Your task to perform on an android device: toggle notifications settings in the gmail app Image 0: 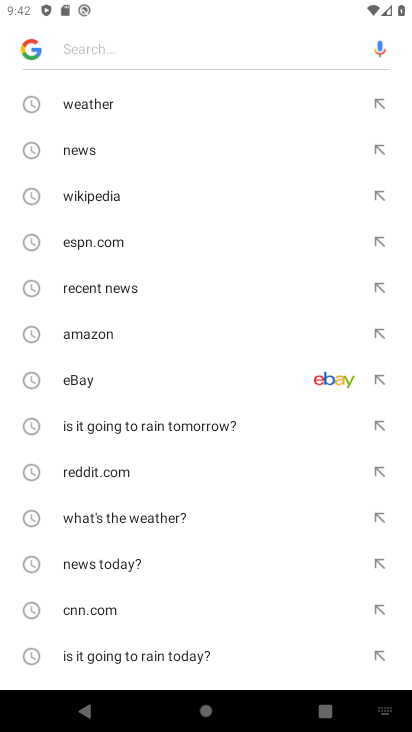
Step 0: press home button
Your task to perform on an android device: toggle notifications settings in the gmail app Image 1: 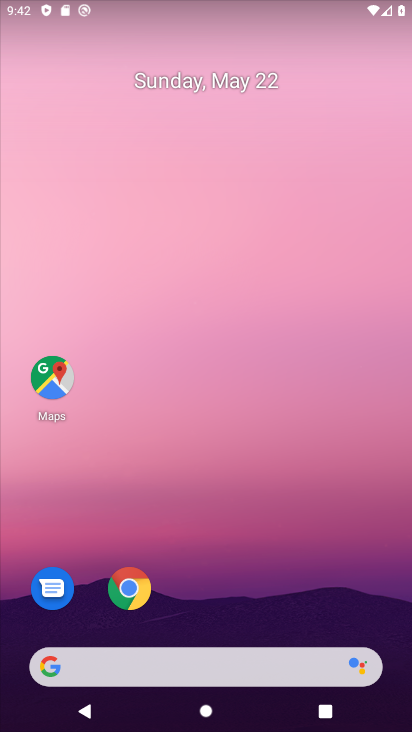
Step 1: drag from (327, 610) to (235, 90)
Your task to perform on an android device: toggle notifications settings in the gmail app Image 2: 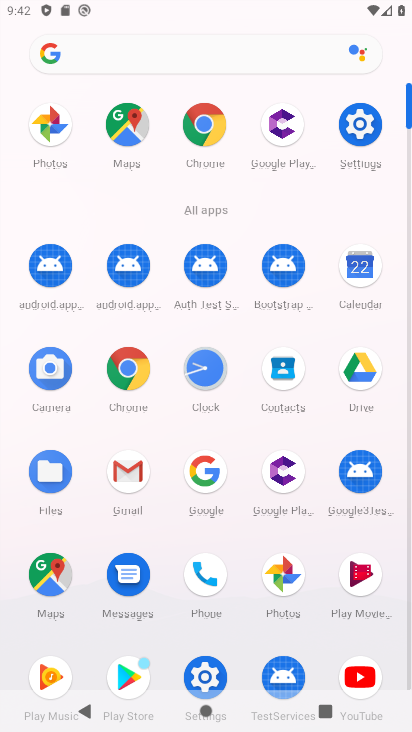
Step 2: click (132, 464)
Your task to perform on an android device: toggle notifications settings in the gmail app Image 3: 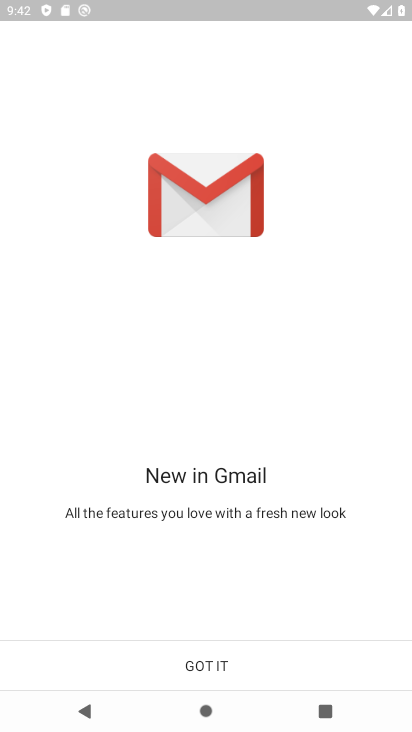
Step 3: click (206, 673)
Your task to perform on an android device: toggle notifications settings in the gmail app Image 4: 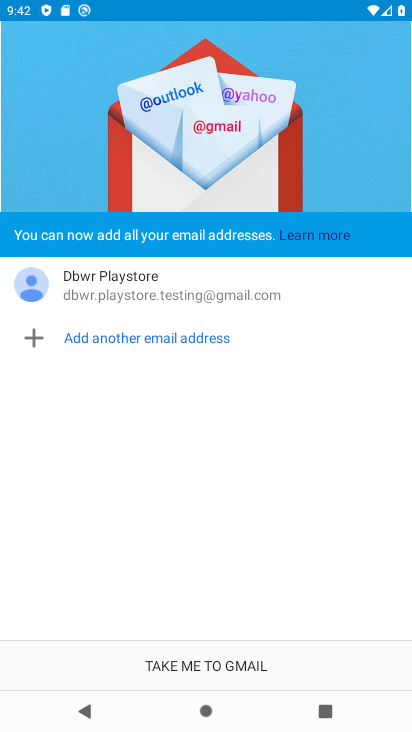
Step 4: click (206, 673)
Your task to perform on an android device: toggle notifications settings in the gmail app Image 5: 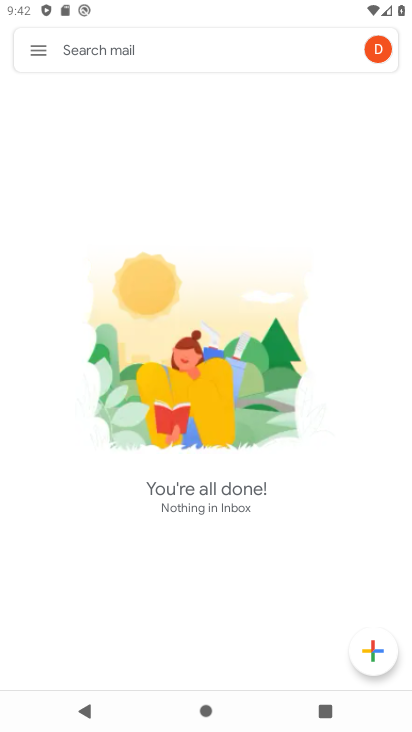
Step 5: click (36, 53)
Your task to perform on an android device: toggle notifications settings in the gmail app Image 6: 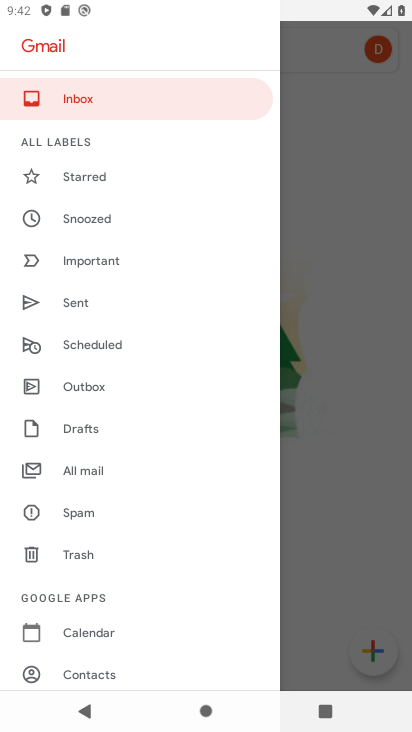
Step 6: drag from (156, 632) to (164, 135)
Your task to perform on an android device: toggle notifications settings in the gmail app Image 7: 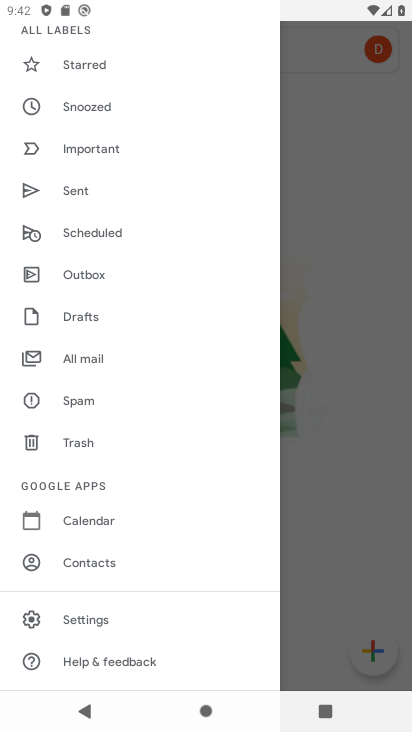
Step 7: click (102, 620)
Your task to perform on an android device: toggle notifications settings in the gmail app Image 8: 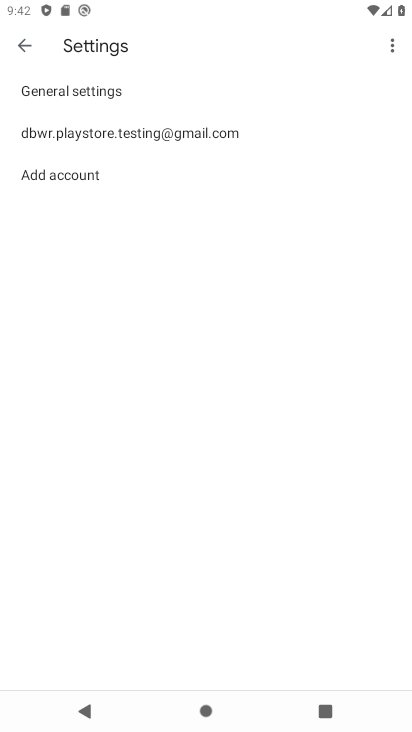
Step 8: click (168, 132)
Your task to perform on an android device: toggle notifications settings in the gmail app Image 9: 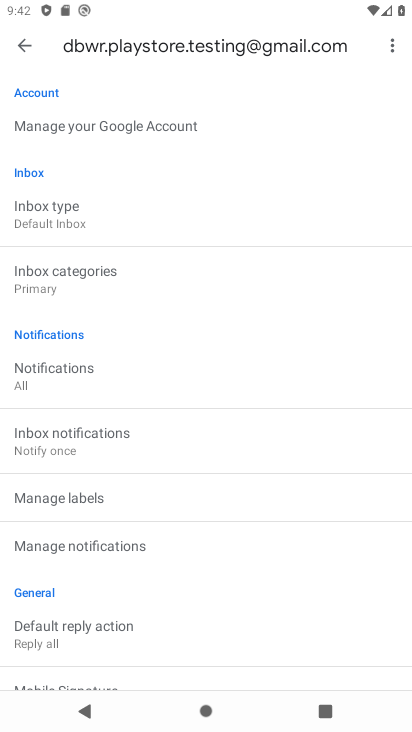
Step 9: click (161, 551)
Your task to perform on an android device: toggle notifications settings in the gmail app Image 10: 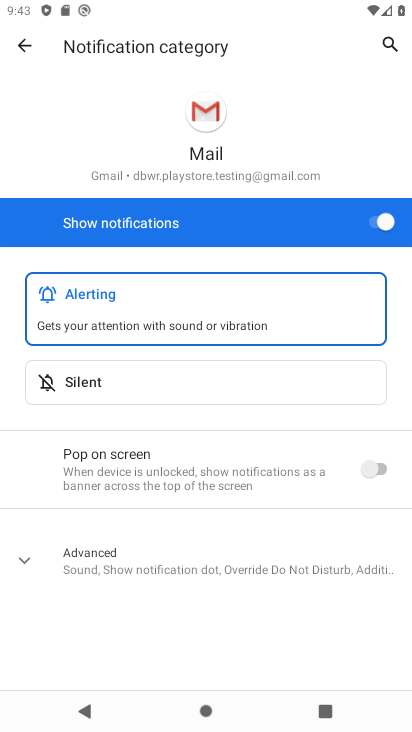
Step 10: click (373, 230)
Your task to perform on an android device: toggle notifications settings in the gmail app Image 11: 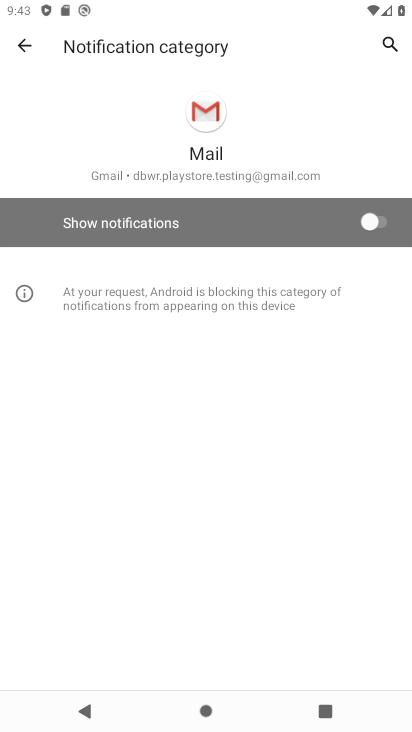
Step 11: task complete